Your task to perform on an android device: Open Google Chrome and click the shortcut for Amazon.com Image 0: 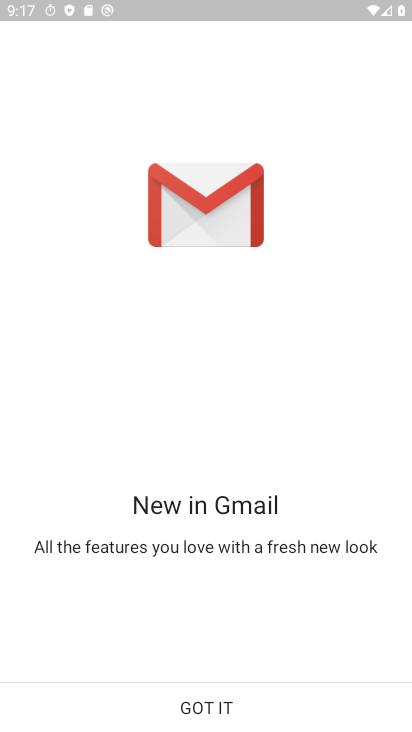
Step 0: press home button
Your task to perform on an android device: Open Google Chrome and click the shortcut for Amazon.com Image 1: 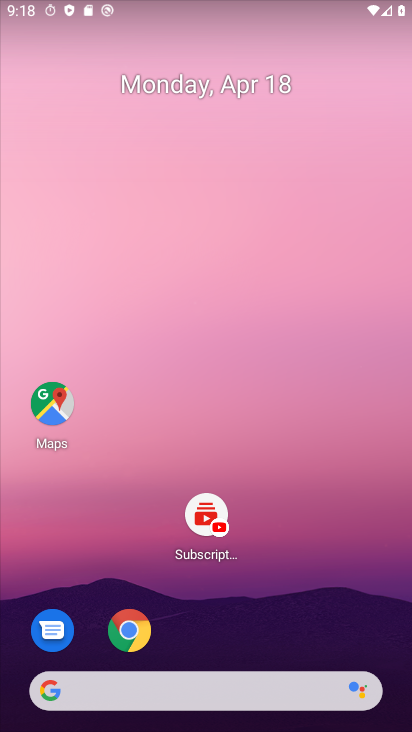
Step 1: click (124, 624)
Your task to perform on an android device: Open Google Chrome and click the shortcut for Amazon.com Image 2: 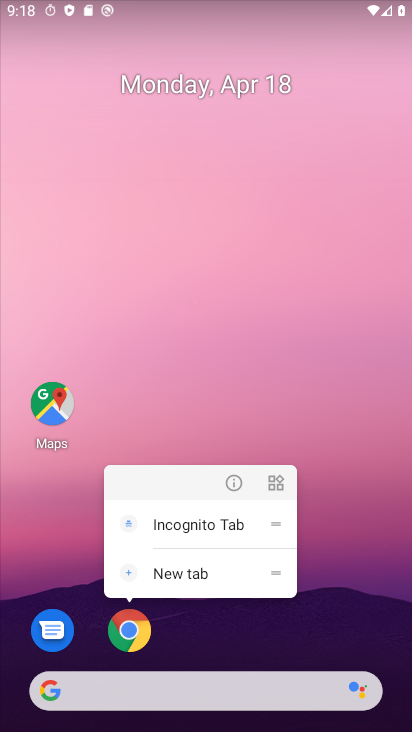
Step 2: drag from (178, 645) to (226, 237)
Your task to perform on an android device: Open Google Chrome and click the shortcut for Amazon.com Image 3: 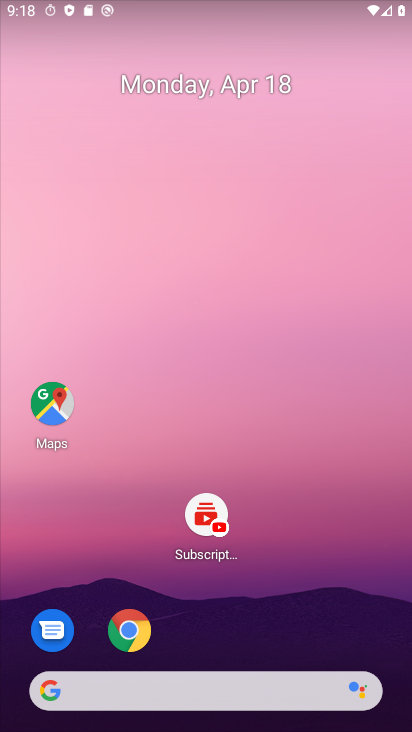
Step 3: drag from (177, 629) to (263, 192)
Your task to perform on an android device: Open Google Chrome and click the shortcut for Amazon.com Image 4: 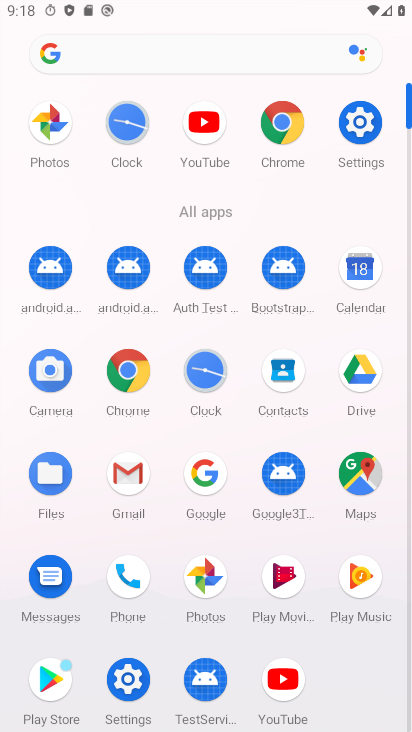
Step 4: click (117, 365)
Your task to perform on an android device: Open Google Chrome and click the shortcut for Amazon.com Image 5: 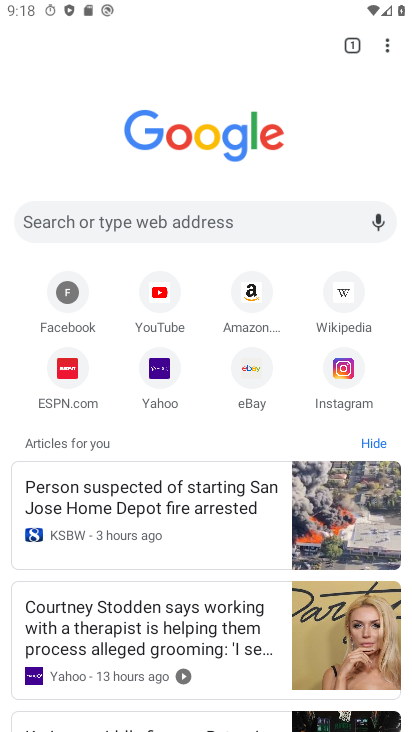
Step 5: click (249, 302)
Your task to perform on an android device: Open Google Chrome and click the shortcut for Amazon.com Image 6: 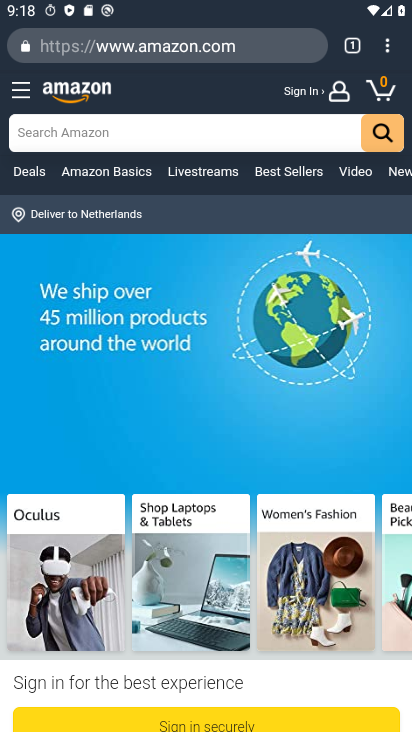
Step 6: task complete